Your task to perform on an android device: turn pop-ups off in chrome Image 0: 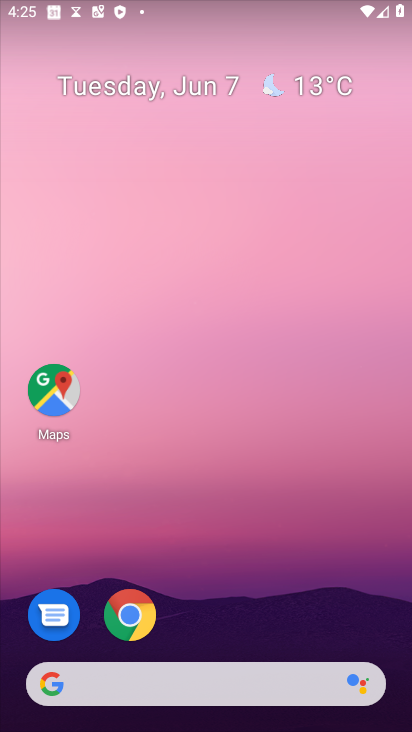
Step 0: drag from (272, 627) to (259, 371)
Your task to perform on an android device: turn pop-ups off in chrome Image 1: 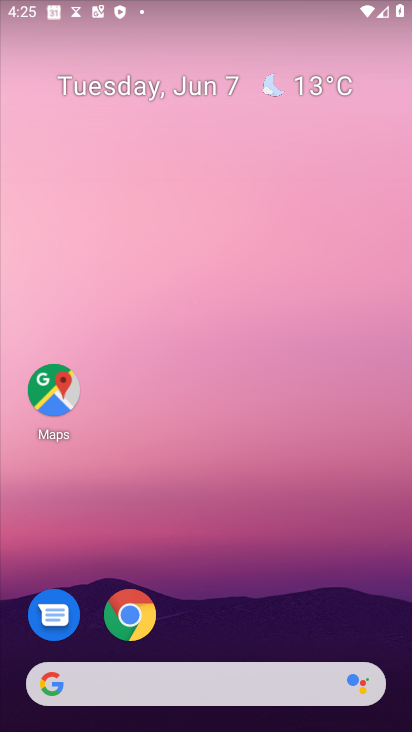
Step 1: drag from (250, 649) to (257, 266)
Your task to perform on an android device: turn pop-ups off in chrome Image 2: 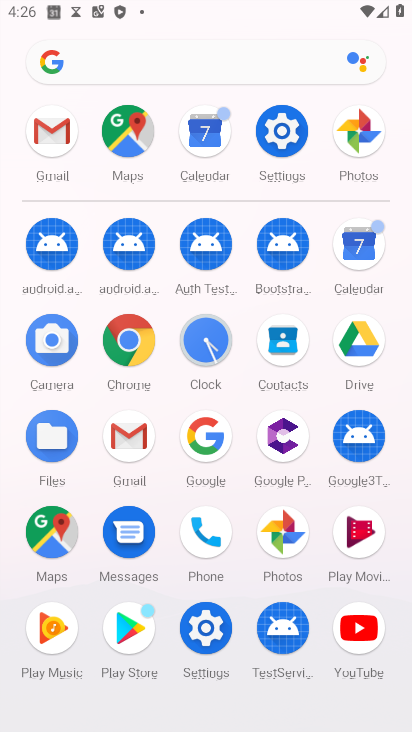
Step 2: click (135, 345)
Your task to perform on an android device: turn pop-ups off in chrome Image 3: 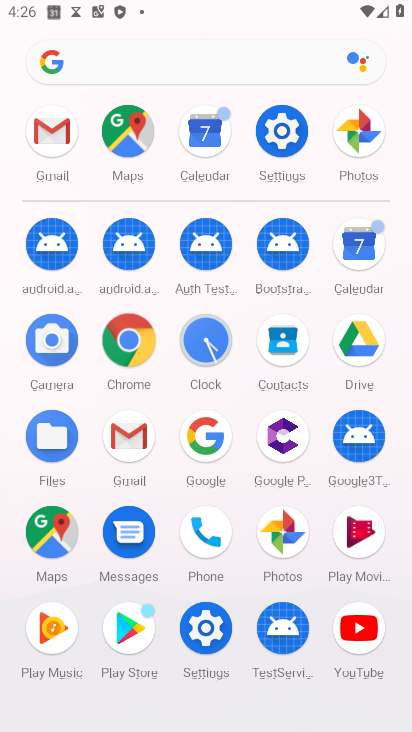
Step 3: click (135, 345)
Your task to perform on an android device: turn pop-ups off in chrome Image 4: 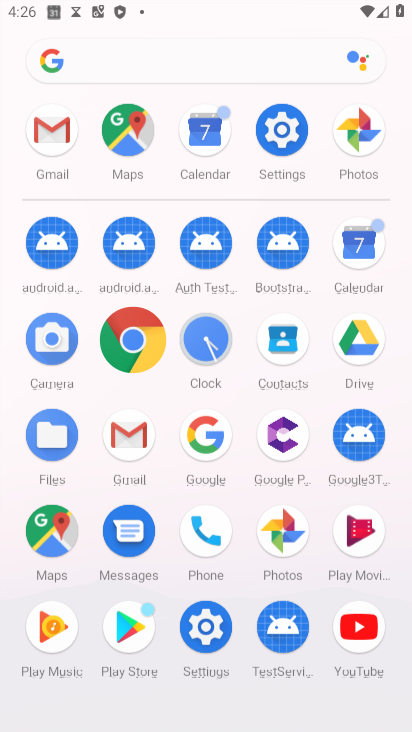
Step 4: click (135, 345)
Your task to perform on an android device: turn pop-ups off in chrome Image 5: 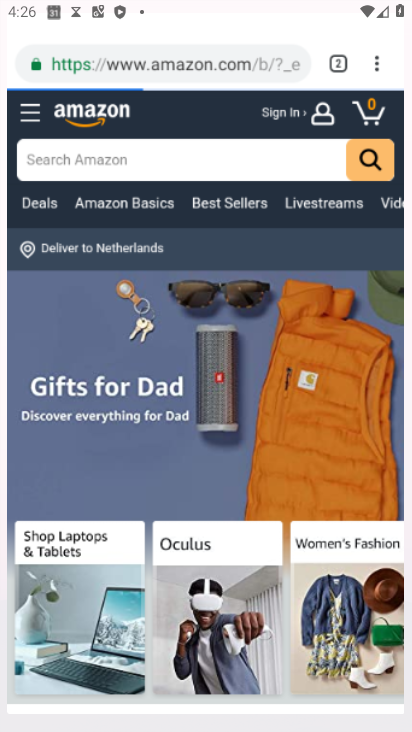
Step 5: click (135, 345)
Your task to perform on an android device: turn pop-ups off in chrome Image 6: 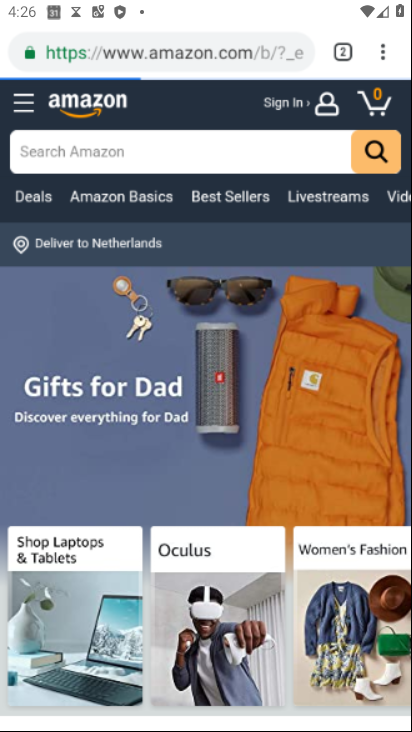
Step 6: click (135, 345)
Your task to perform on an android device: turn pop-ups off in chrome Image 7: 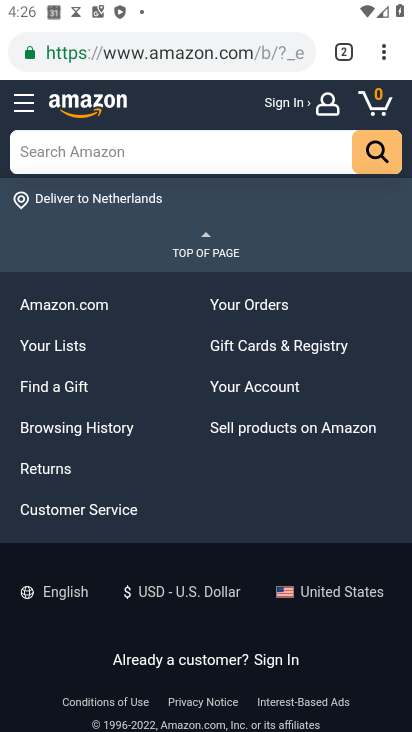
Step 7: drag from (385, 52) to (188, 655)
Your task to perform on an android device: turn pop-ups off in chrome Image 8: 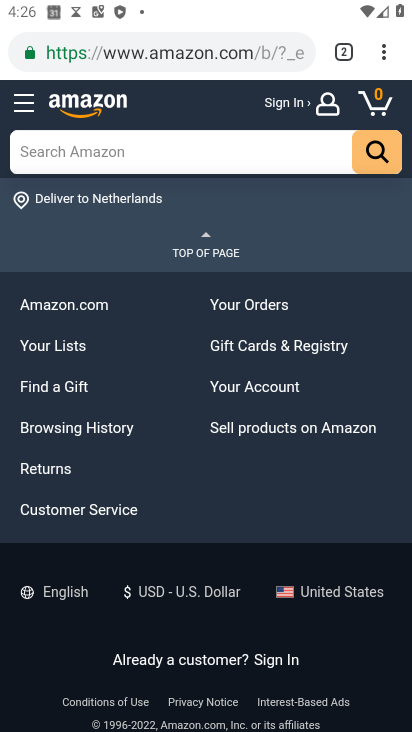
Step 8: click (186, 658)
Your task to perform on an android device: turn pop-ups off in chrome Image 9: 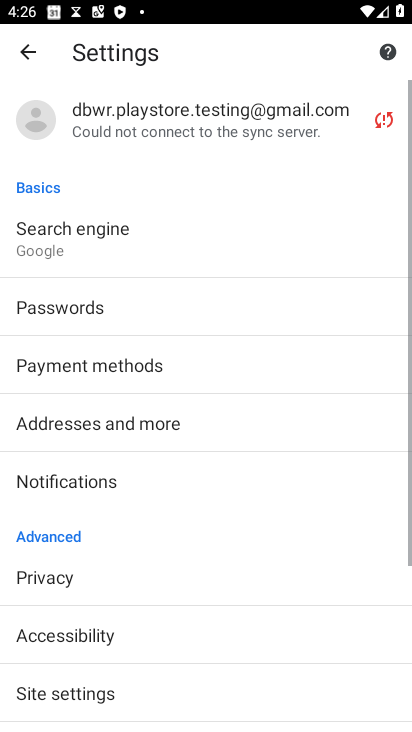
Step 9: drag from (133, 559) to (97, 210)
Your task to perform on an android device: turn pop-ups off in chrome Image 10: 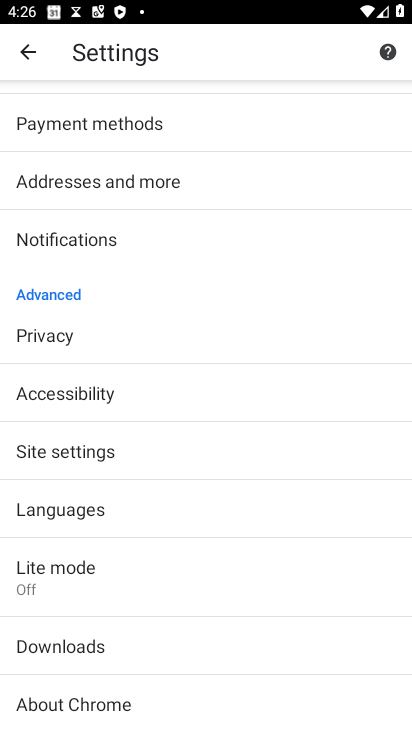
Step 10: click (59, 460)
Your task to perform on an android device: turn pop-ups off in chrome Image 11: 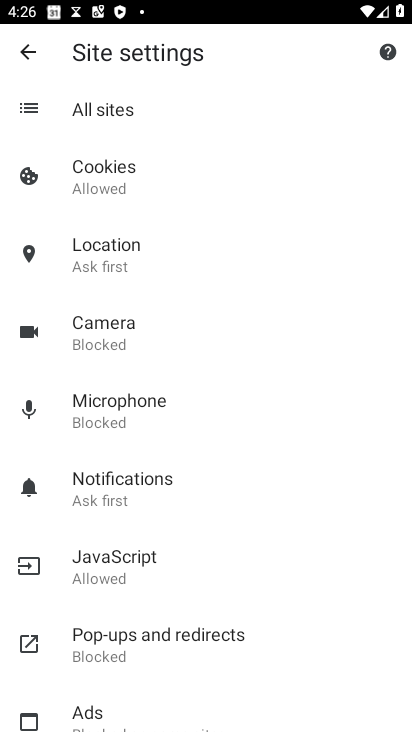
Step 11: click (122, 637)
Your task to perform on an android device: turn pop-ups off in chrome Image 12: 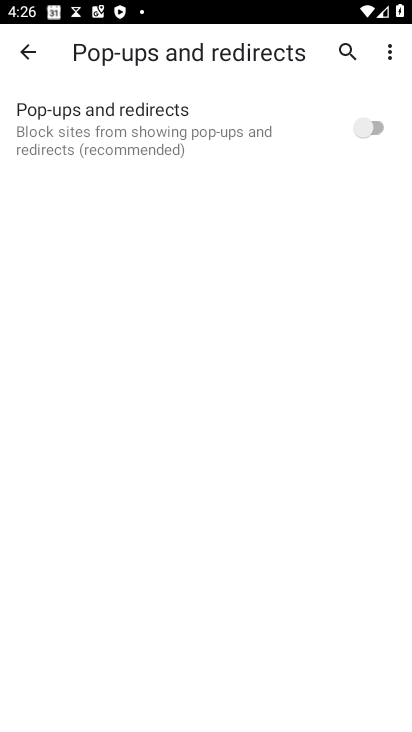
Step 12: task complete